Your task to perform on an android device: When is my next meeting? Image 0: 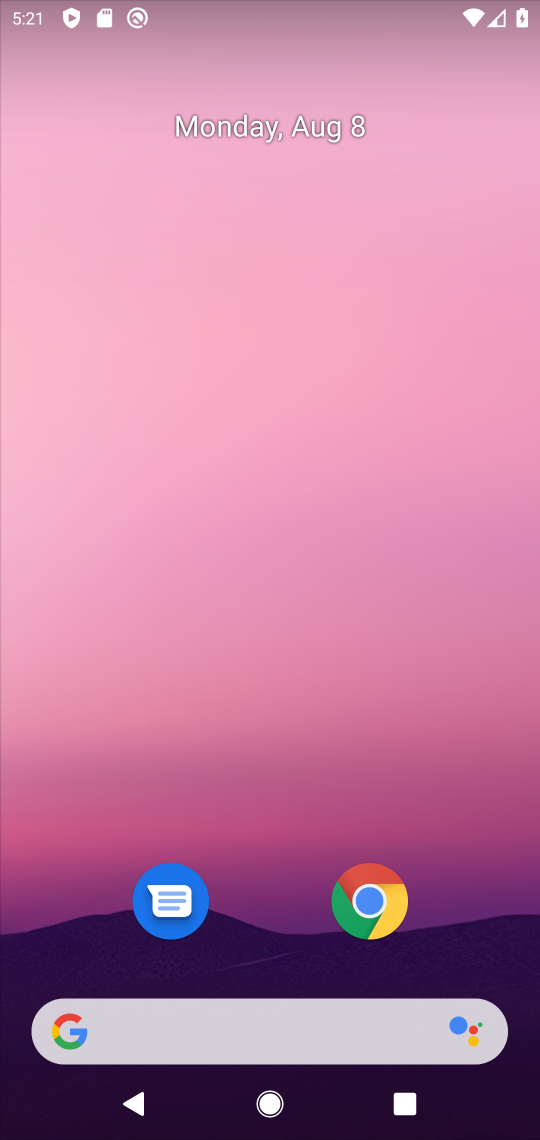
Step 0: drag from (275, 948) to (343, 13)
Your task to perform on an android device: When is my next meeting? Image 1: 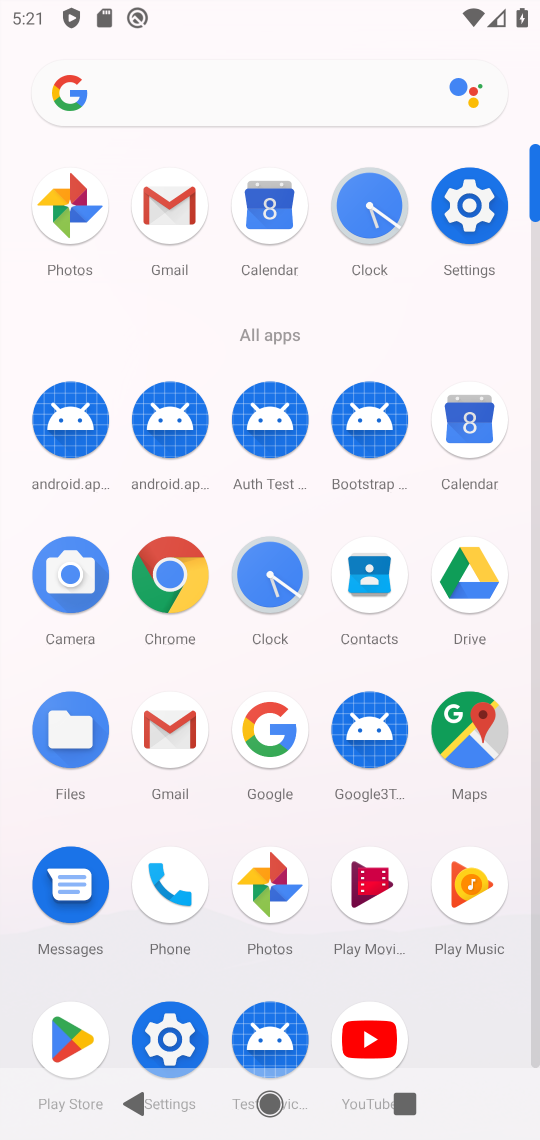
Step 1: click (479, 428)
Your task to perform on an android device: When is my next meeting? Image 2: 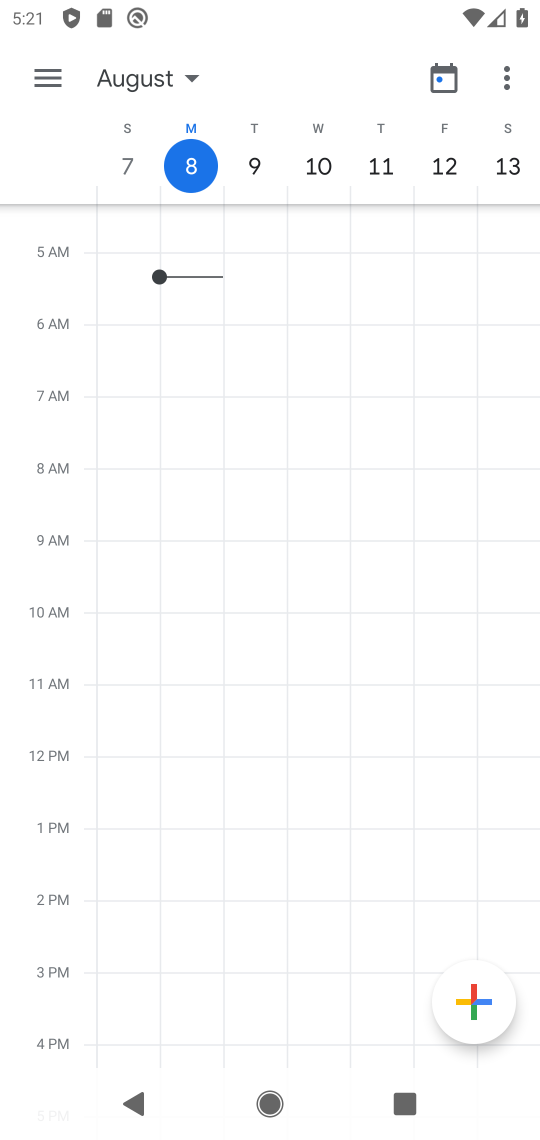
Step 2: click (47, 77)
Your task to perform on an android device: When is my next meeting? Image 3: 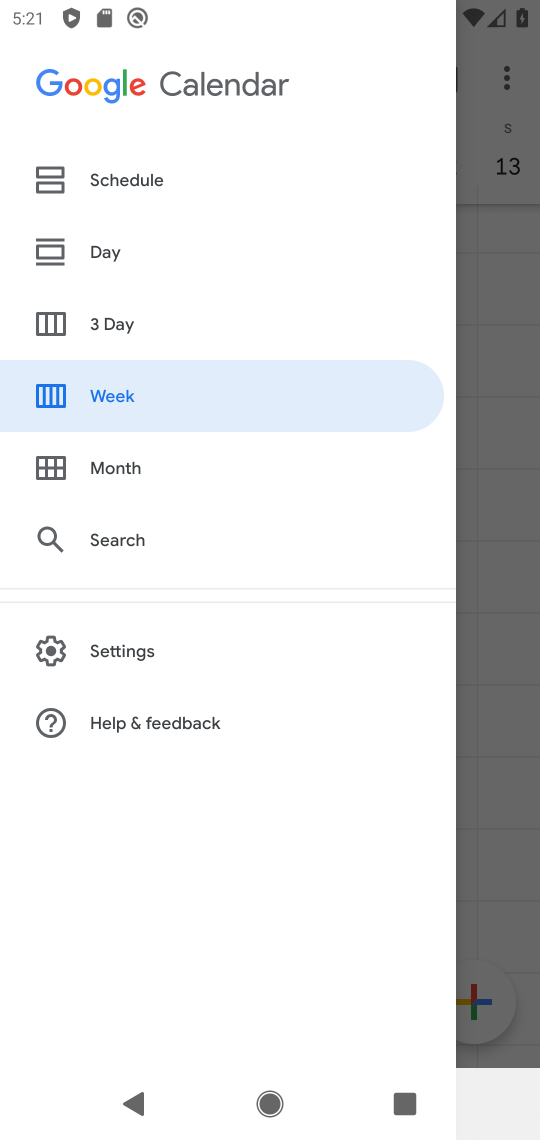
Step 3: click (139, 187)
Your task to perform on an android device: When is my next meeting? Image 4: 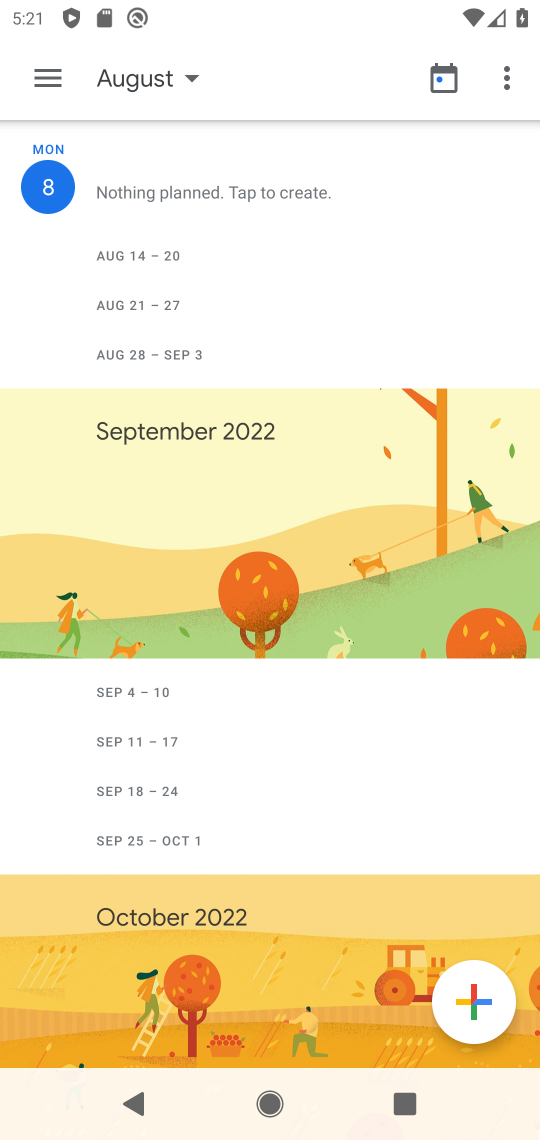
Step 4: task complete